Your task to perform on an android device: turn pop-ups off in chrome Image 0: 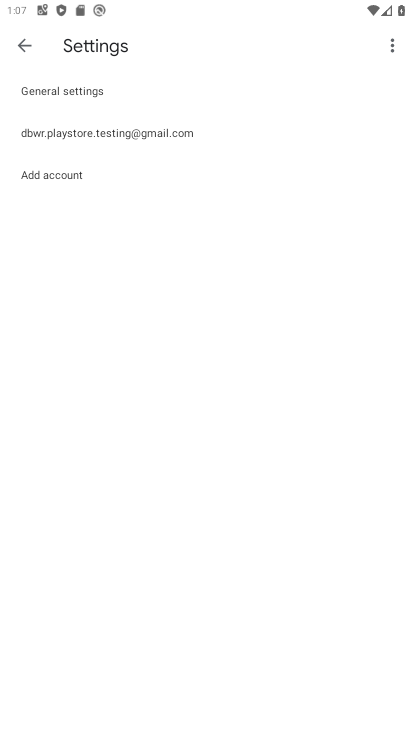
Step 0: press home button
Your task to perform on an android device: turn pop-ups off in chrome Image 1: 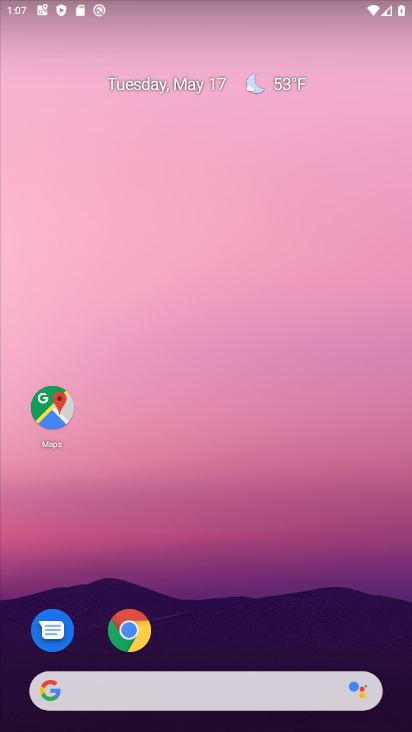
Step 1: drag from (218, 668) to (247, 295)
Your task to perform on an android device: turn pop-ups off in chrome Image 2: 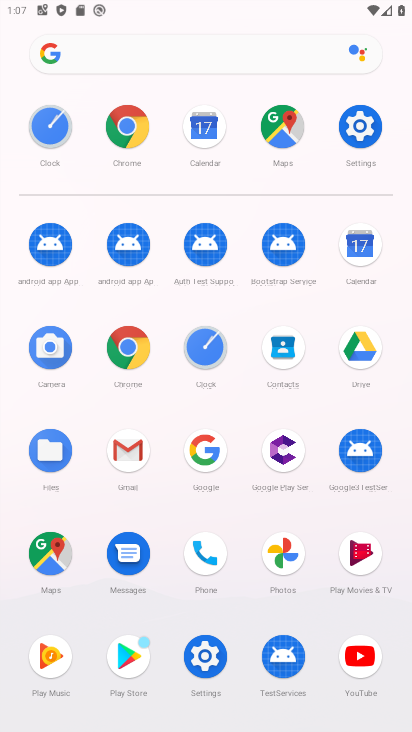
Step 2: click (122, 136)
Your task to perform on an android device: turn pop-ups off in chrome Image 3: 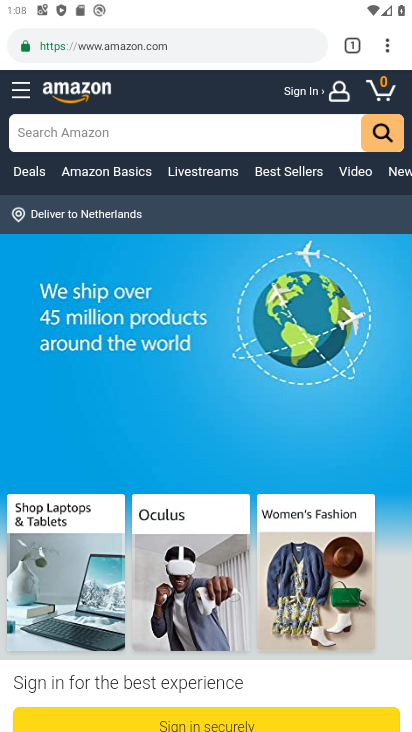
Step 3: click (385, 48)
Your task to perform on an android device: turn pop-ups off in chrome Image 4: 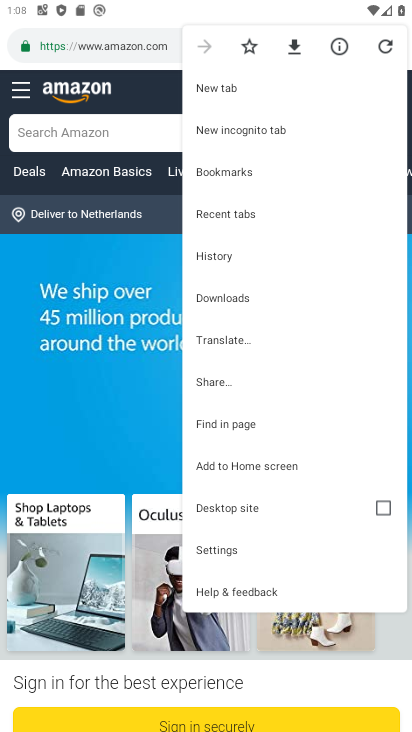
Step 4: click (251, 553)
Your task to perform on an android device: turn pop-ups off in chrome Image 5: 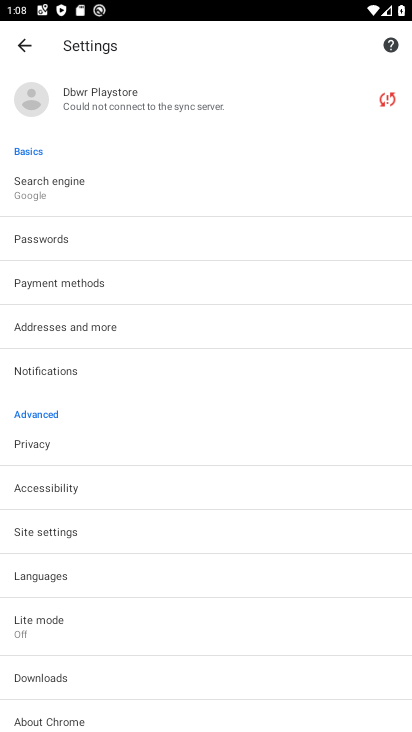
Step 5: click (141, 543)
Your task to perform on an android device: turn pop-ups off in chrome Image 6: 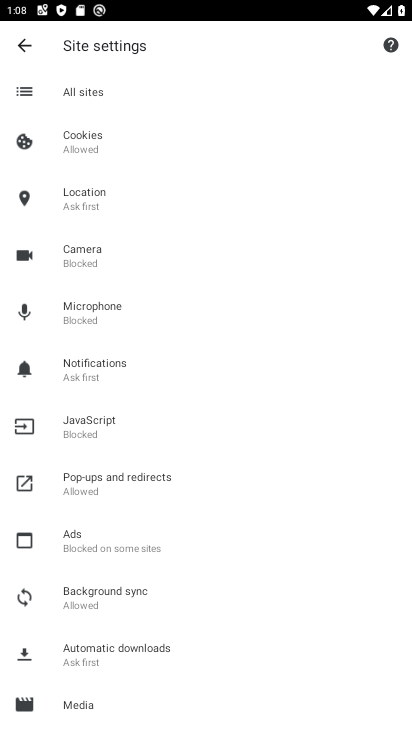
Step 6: click (126, 492)
Your task to perform on an android device: turn pop-ups off in chrome Image 7: 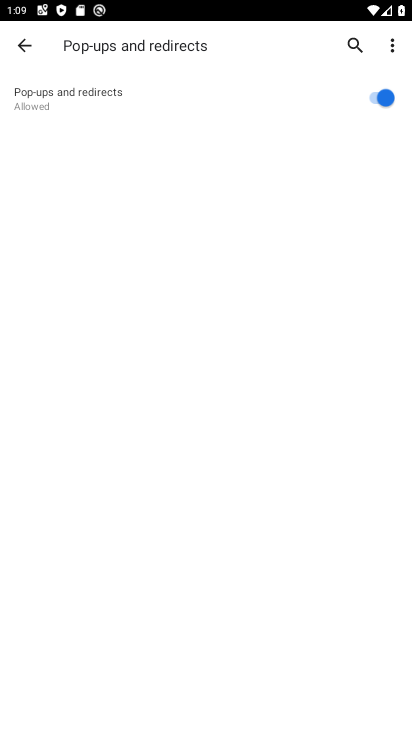
Step 7: click (374, 93)
Your task to perform on an android device: turn pop-ups off in chrome Image 8: 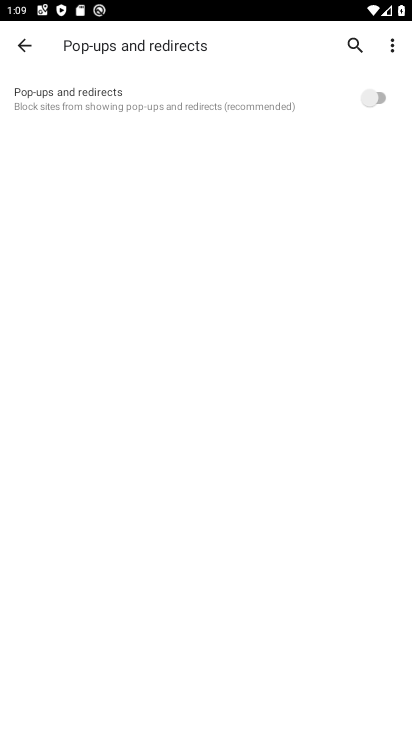
Step 8: task complete